Your task to perform on an android device: turn pop-ups off in chrome Image 0: 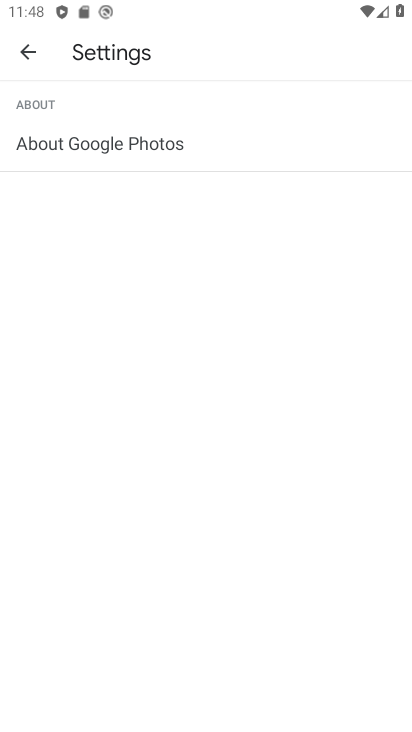
Step 0: press back button
Your task to perform on an android device: turn pop-ups off in chrome Image 1: 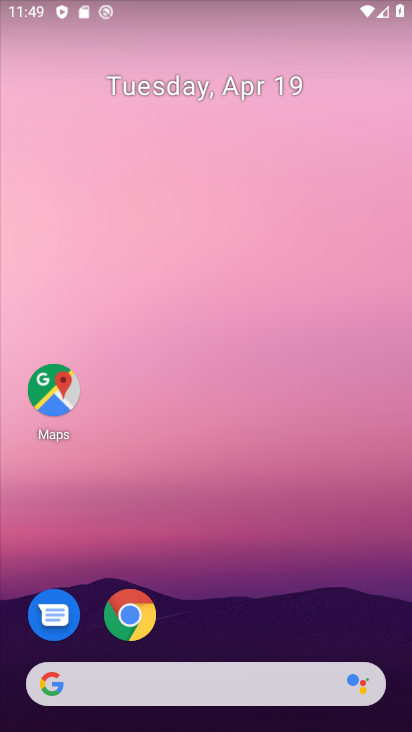
Step 1: click (356, 129)
Your task to perform on an android device: turn pop-ups off in chrome Image 2: 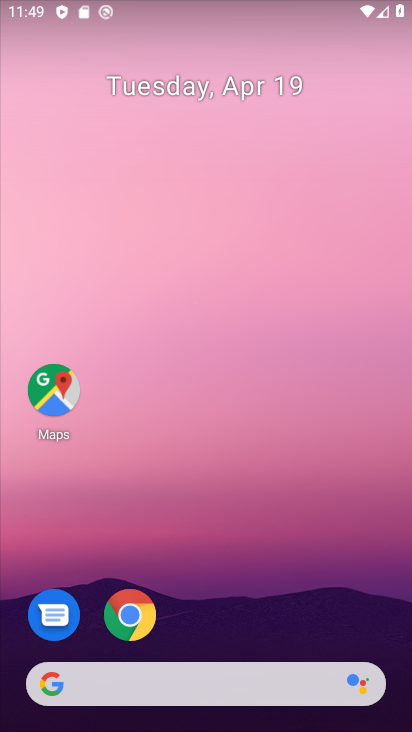
Step 2: drag from (361, 598) to (325, 108)
Your task to perform on an android device: turn pop-ups off in chrome Image 3: 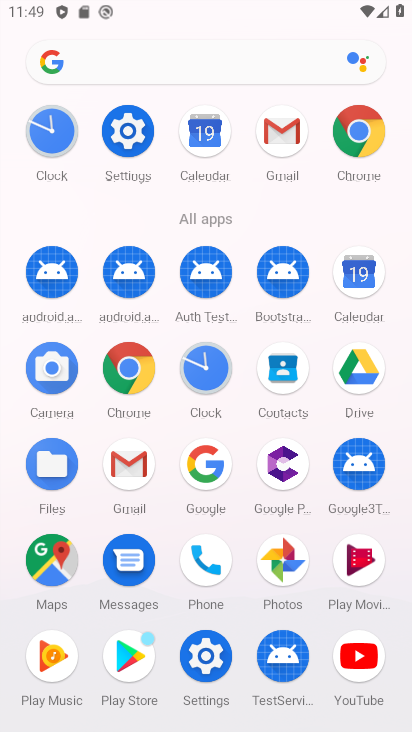
Step 3: click (360, 138)
Your task to perform on an android device: turn pop-ups off in chrome Image 4: 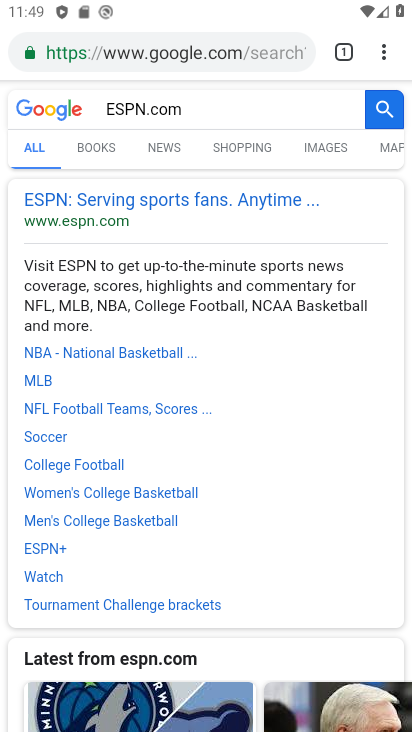
Step 4: drag from (382, 48) to (390, 319)
Your task to perform on an android device: turn pop-ups off in chrome Image 5: 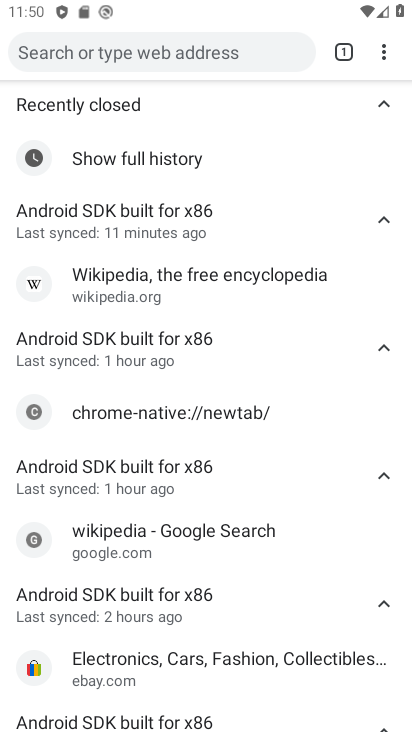
Step 5: press back button
Your task to perform on an android device: turn pop-ups off in chrome Image 6: 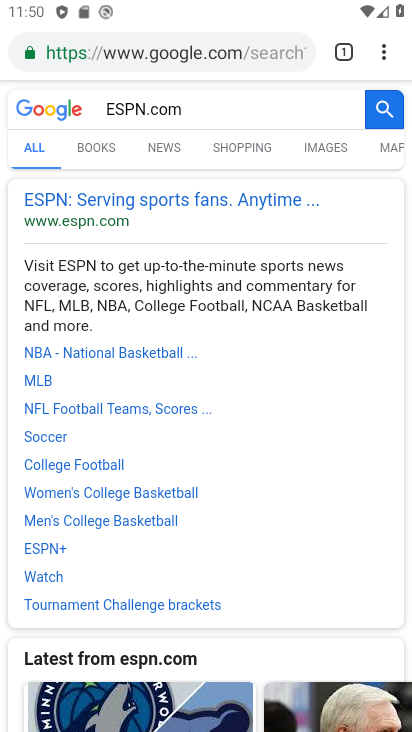
Step 6: click (385, 47)
Your task to perform on an android device: turn pop-ups off in chrome Image 7: 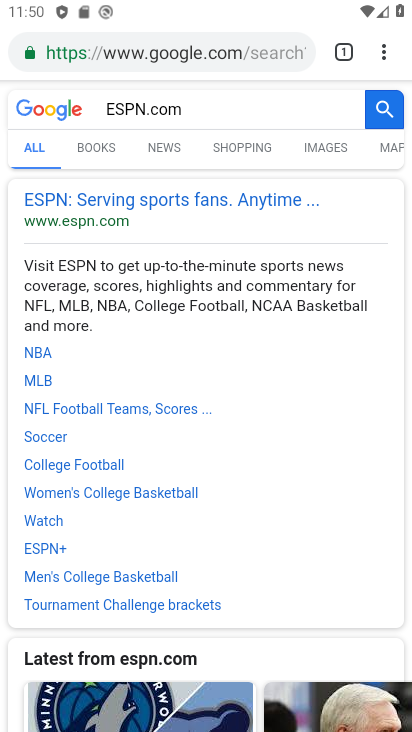
Step 7: click (385, 47)
Your task to perform on an android device: turn pop-ups off in chrome Image 8: 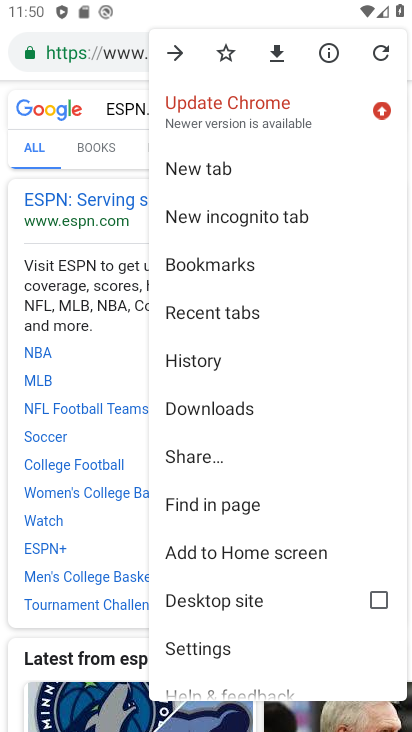
Step 8: click (203, 644)
Your task to perform on an android device: turn pop-ups off in chrome Image 9: 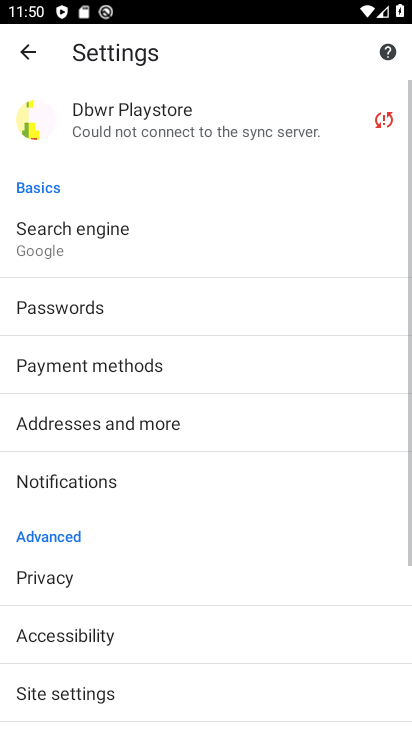
Step 9: drag from (248, 664) to (246, 255)
Your task to perform on an android device: turn pop-ups off in chrome Image 10: 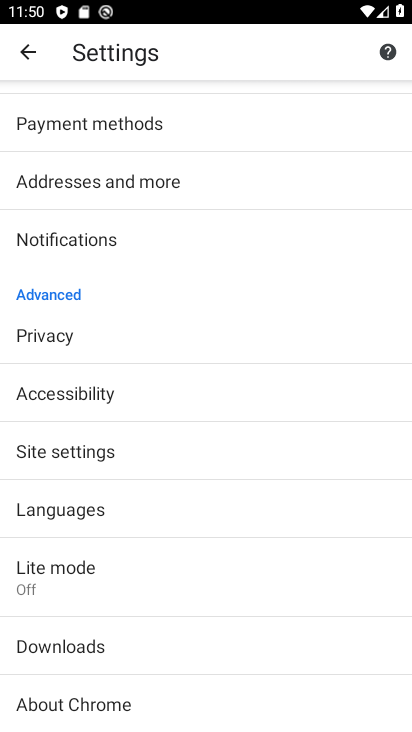
Step 10: drag from (272, 657) to (285, 219)
Your task to perform on an android device: turn pop-ups off in chrome Image 11: 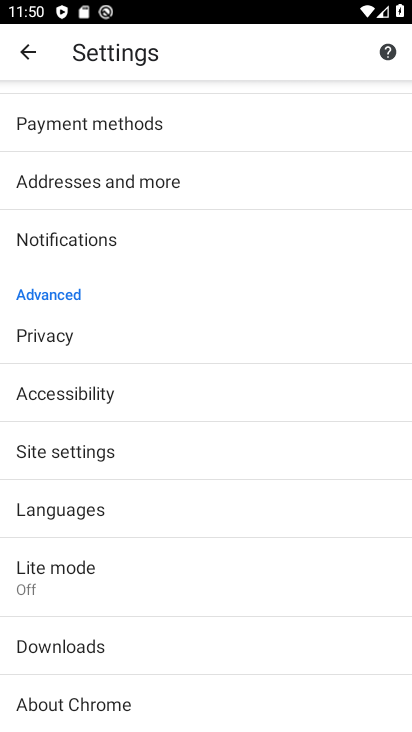
Step 11: click (95, 449)
Your task to perform on an android device: turn pop-ups off in chrome Image 12: 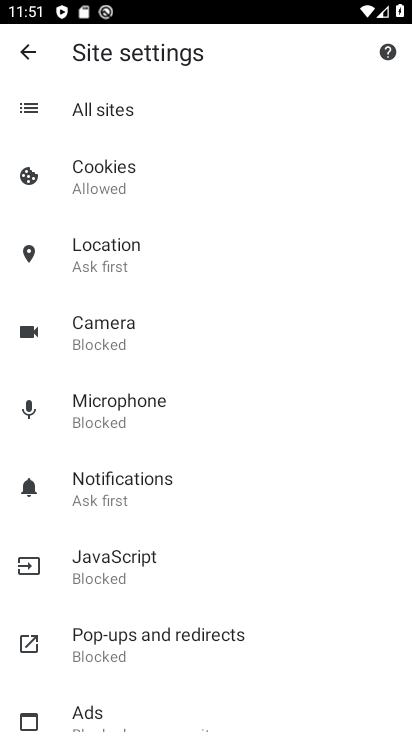
Step 12: click (117, 643)
Your task to perform on an android device: turn pop-ups off in chrome Image 13: 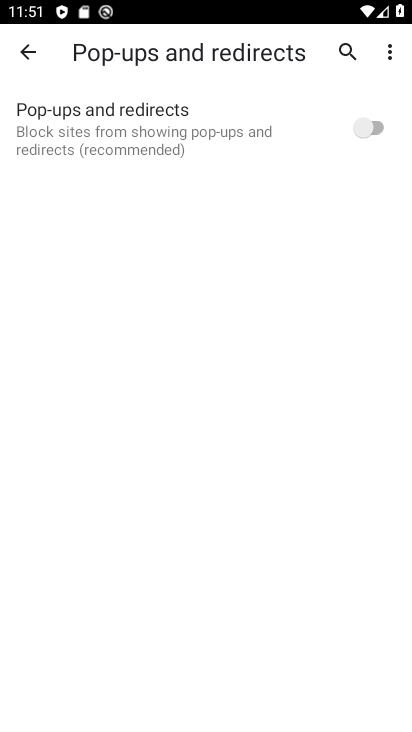
Step 13: task complete